Your task to perform on an android device: Open Chrome and go to settings Image 0: 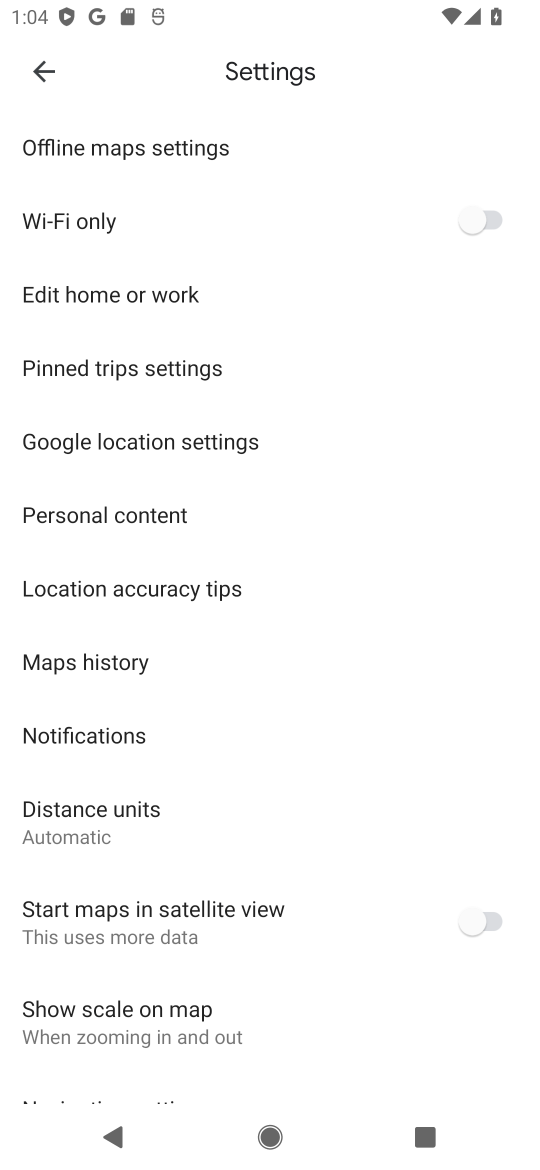
Step 0: press home button
Your task to perform on an android device: Open Chrome and go to settings Image 1: 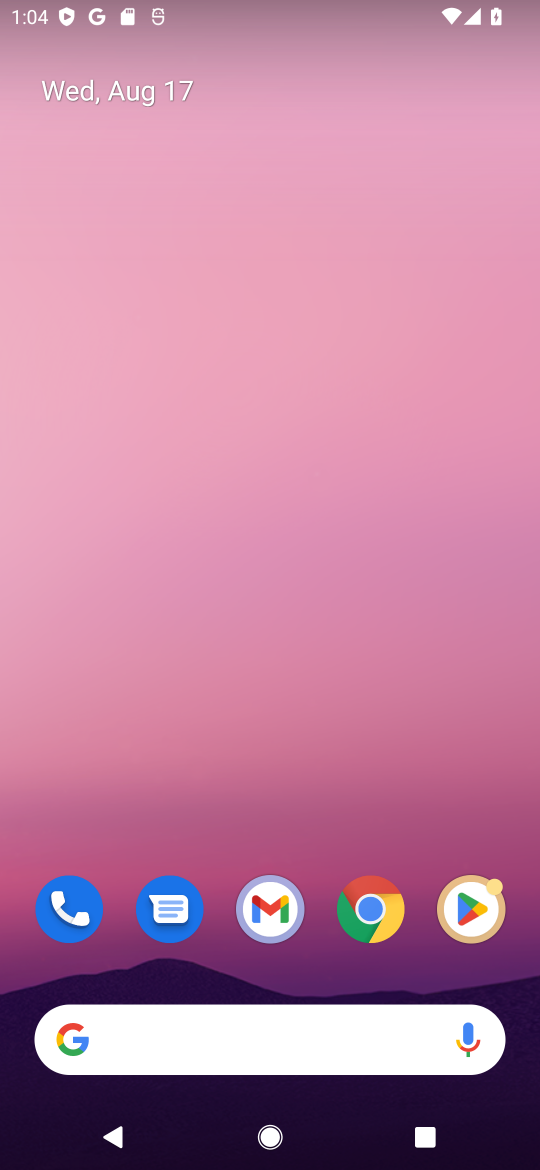
Step 1: click (365, 906)
Your task to perform on an android device: Open Chrome and go to settings Image 2: 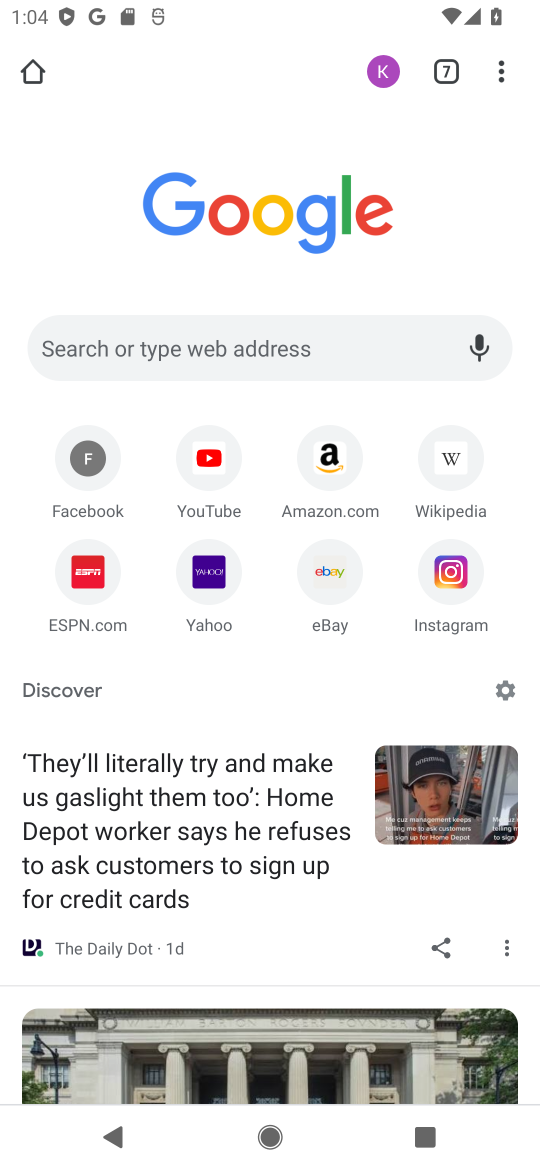
Step 2: click (506, 65)
Your task to perform on an android device: Open Chrome and go to settings Image 3: 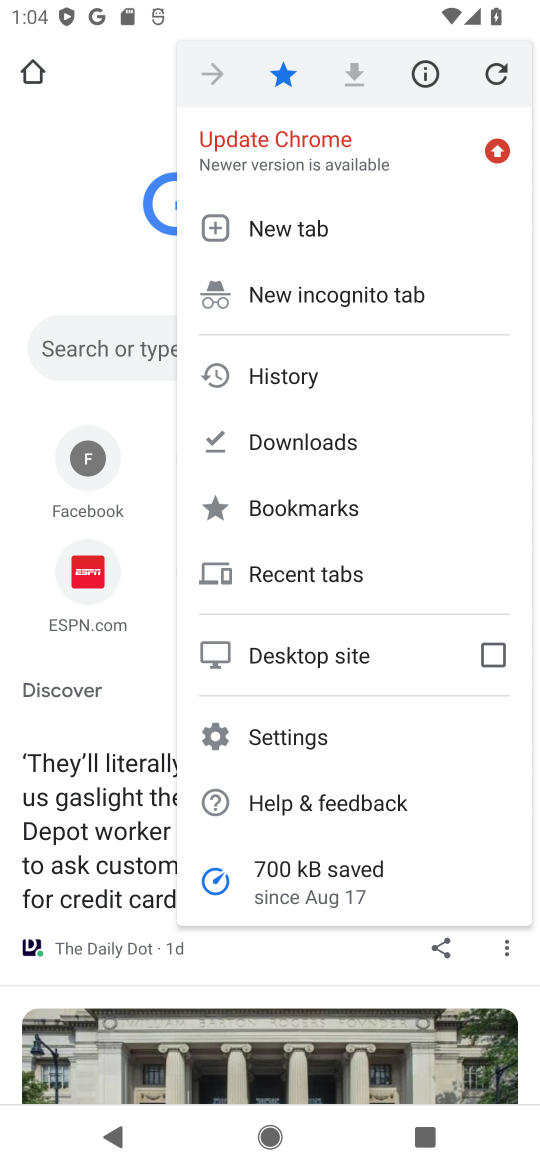
Step 3: click (272, 733)
Your task to perform on an android device: Open Chrome and go to settings Image 4: 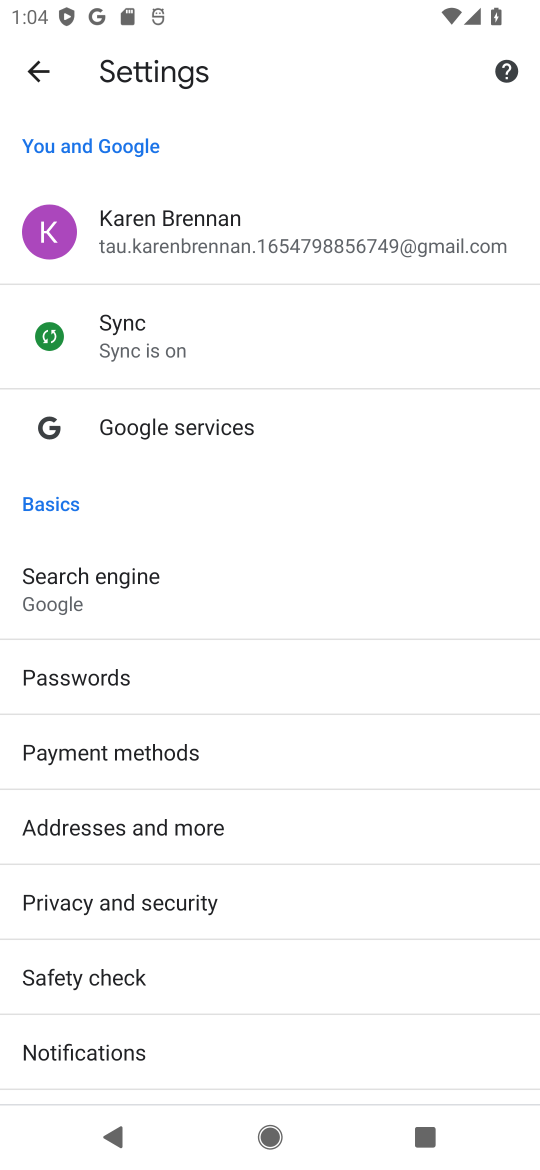
Step 4: task complete